Your task to perform on an android device: Is it going to rain today? Image 0: 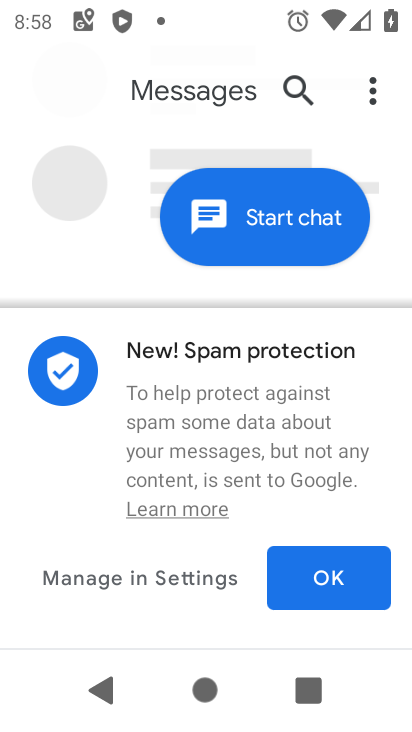
Step 0: press home button
Your task to perform on an android device: Is it going to rain today? Image 1: 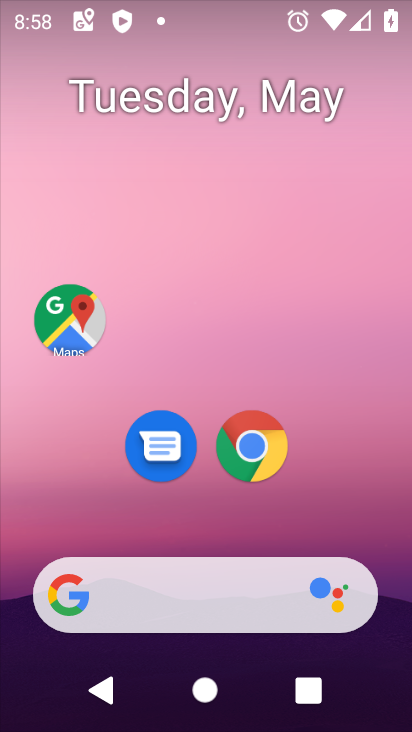
Step 1: click (128, 604)
Your task to perform on an android device: Is it going to rain today? Image 2: 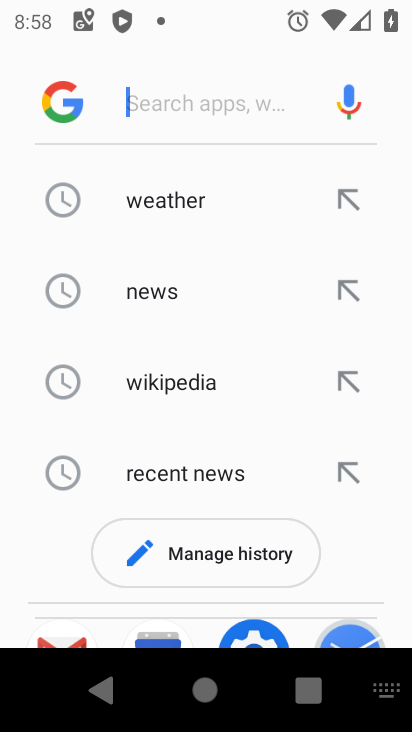
Step 2: click (132, 197)
Your task to perform on an android device: Is it going to rain today? Image 3: 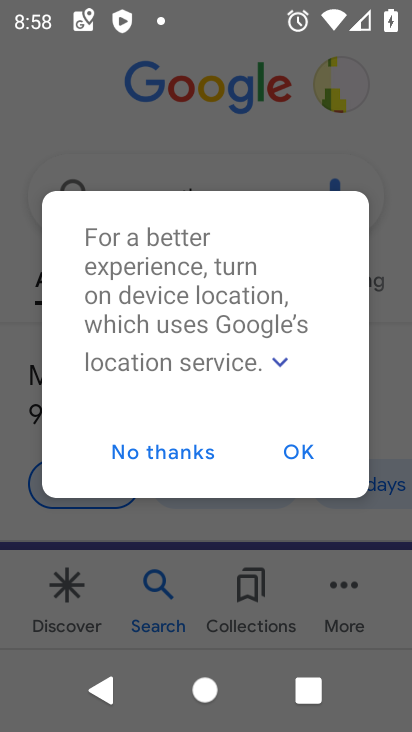
Step 3: click (142, 457)
Your task to perform on an android device: Is it going to rain today? Image 4: 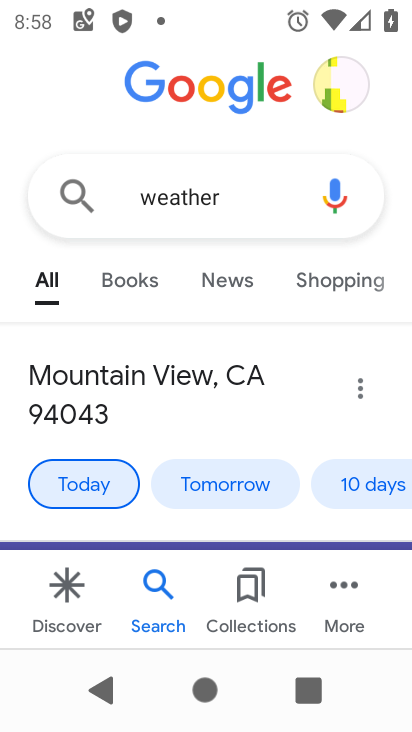
Step 4: task complete